Your task to perform on an android device: add a label to a message in the gmail app Image 0: 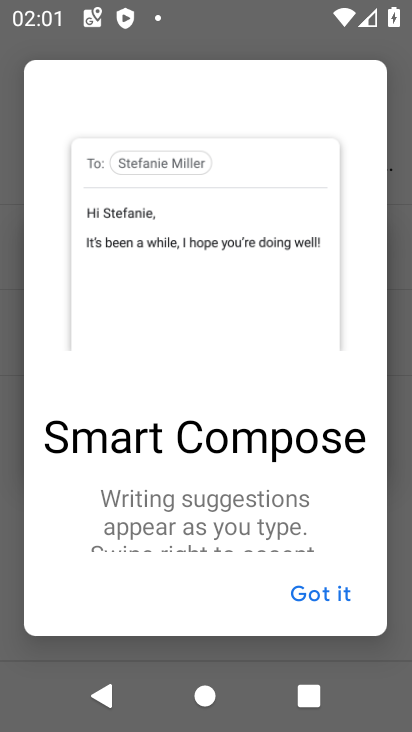
Step 0: press home button
Your task to perform on an android device: add a label to a message in the gmail app Image 1: 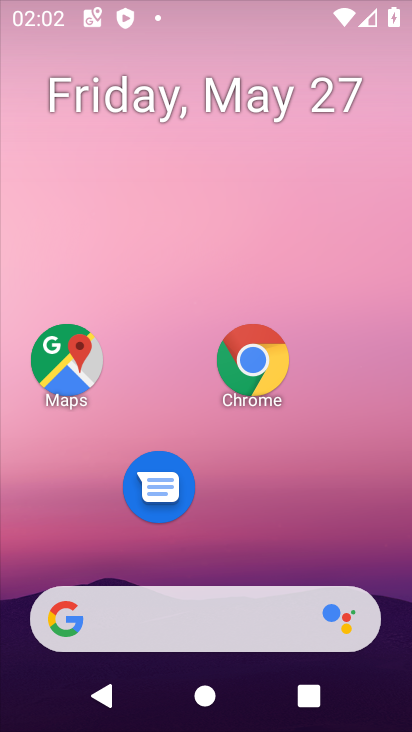
Step 1: drag from (290, 183) to (289, 64)
Your task to perform on an android device: add a label to a message in the gmail app Image 2: 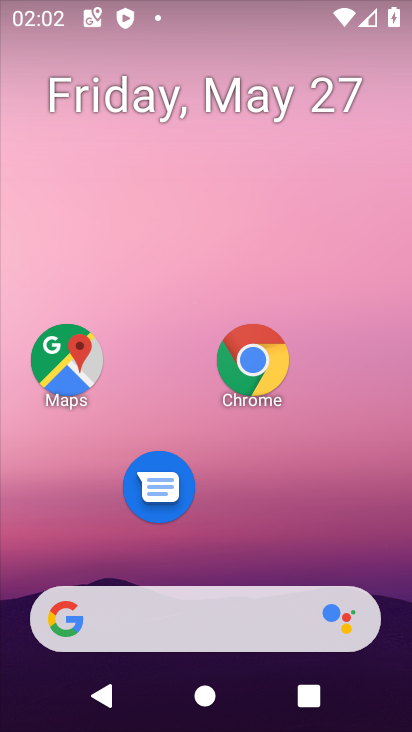
Step 2: drag from (270, 552) to (296, 26)
Your task to perform on an android device: add a label to a message in the gmail app Image 3: 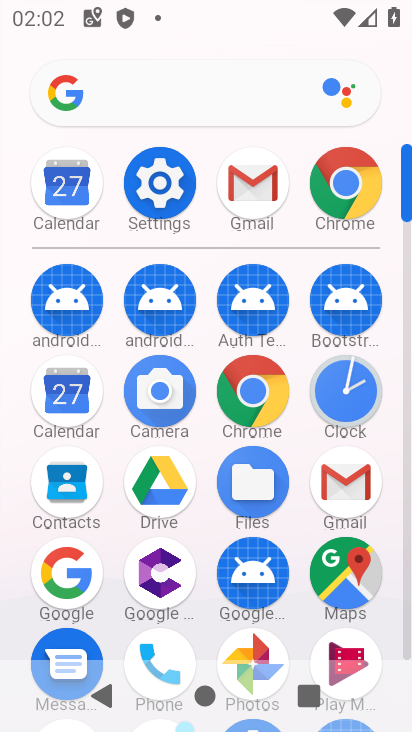
Step 3: click (250, 176)
Your task to perform on an android device: add a label to a message in the gmail app Image 4: 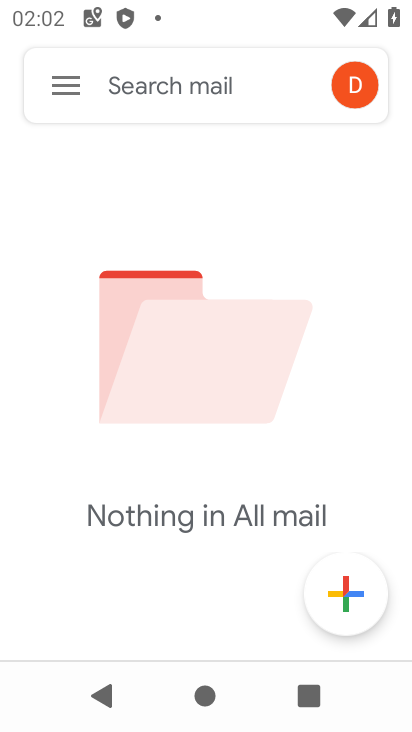
Step 4: task complete